Your task to perform on an android device: turn smart compose on in the gmail app Image 0: 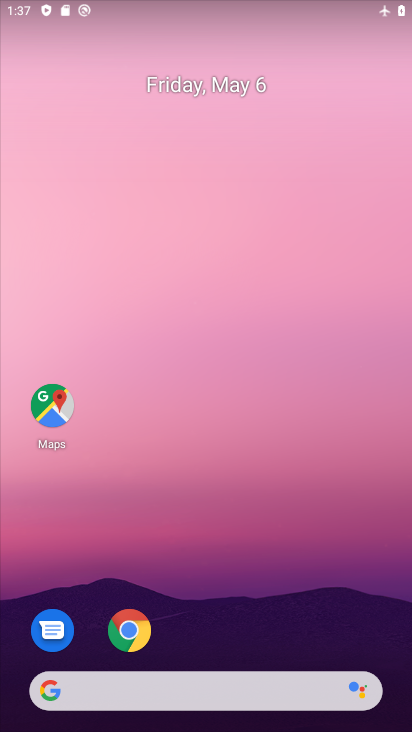
Step 0: drag from (167, 681) to (155, 144)
Your task to perform on an android device: turn smart compose on in the gmail app Image 1: 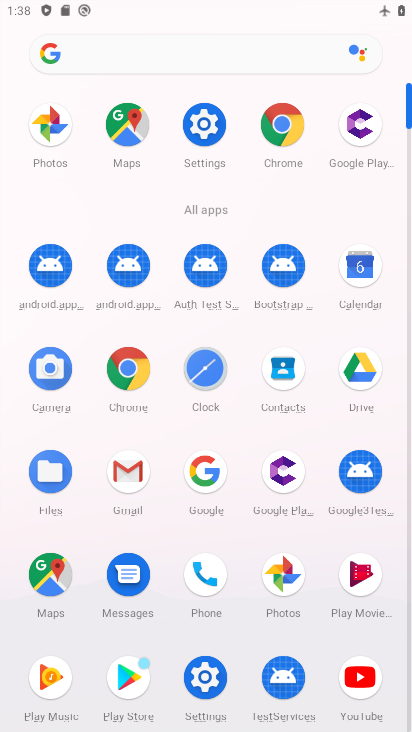
Step 1: click (121, 478)
Your task to perform on an android device: turn smart compose on in the gmail app Image 2: 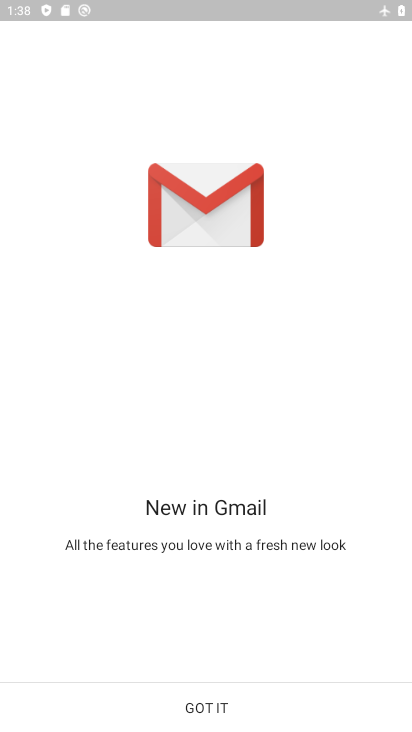
Step 2: click (214, 720)
Your task to perform on an android device: turn smart compose on in the gmail app Image 3: 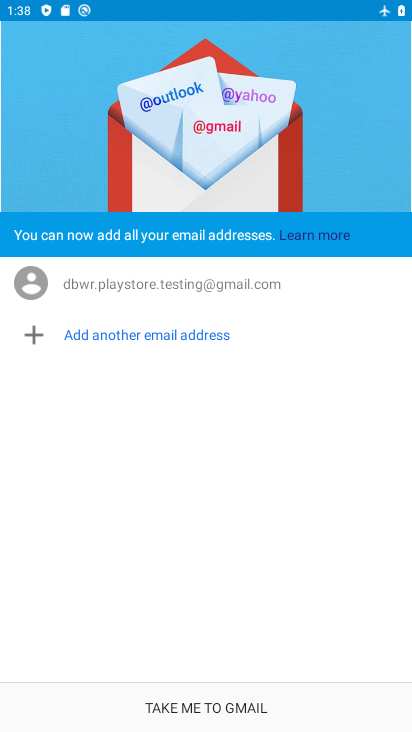
Step 3: click (214, 720)
Your task to perform on an android device: turn smart compose on in the gmail app Image 4: 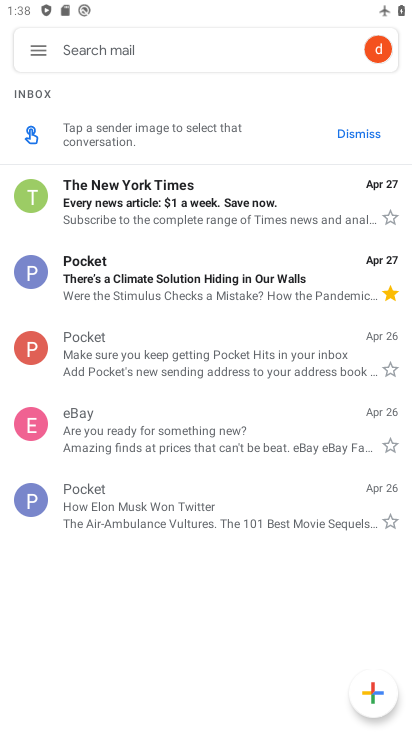
Step 4: click (53, 48)
Your task to perform on an android device: turn smart compose on in the gmail app Image 5: 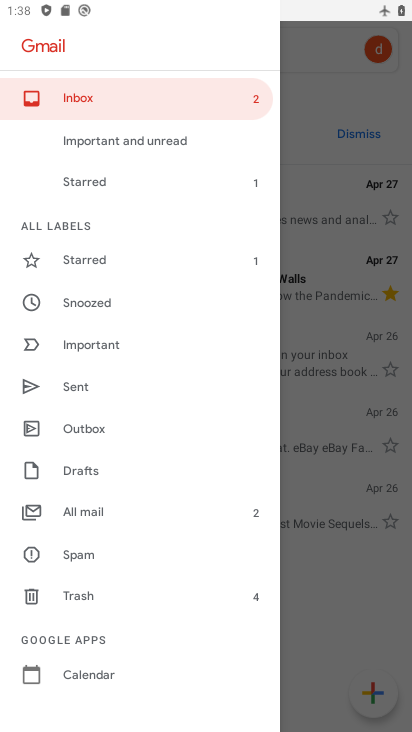
Step 5: drag from (106, 648) to (80, 195)
Your task to perform on an android device: turn smart compose on in the gmail app Image 6: 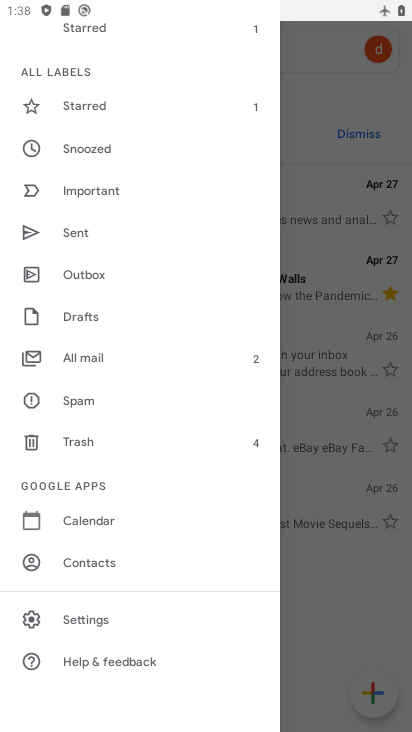
Step 6: click (86, 622)
Your task to perform on an android device: turn smart compose on in the gmail app Image 7: 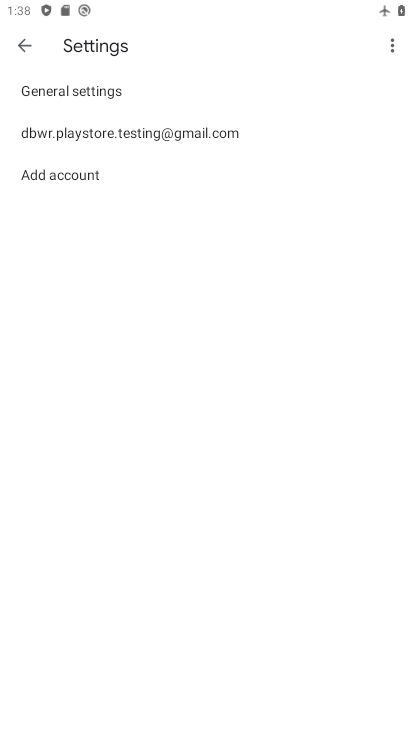
Step 7: click (117, 142)
Your task to perform on an android device: turn smart compose on in the gmail app Image 8: 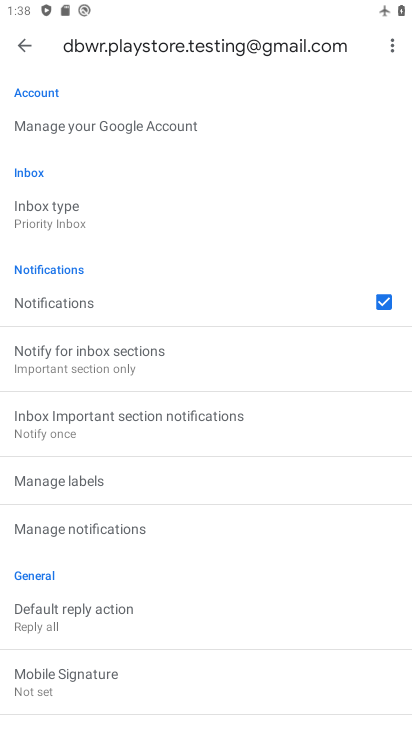
Step 8: task complete